Your task to perform on an android device: Show the shopping cart on walmart.com. Search for bose soundlink on walmart.com, select the first entry, add it to the cart, then select checkout. Image 0: 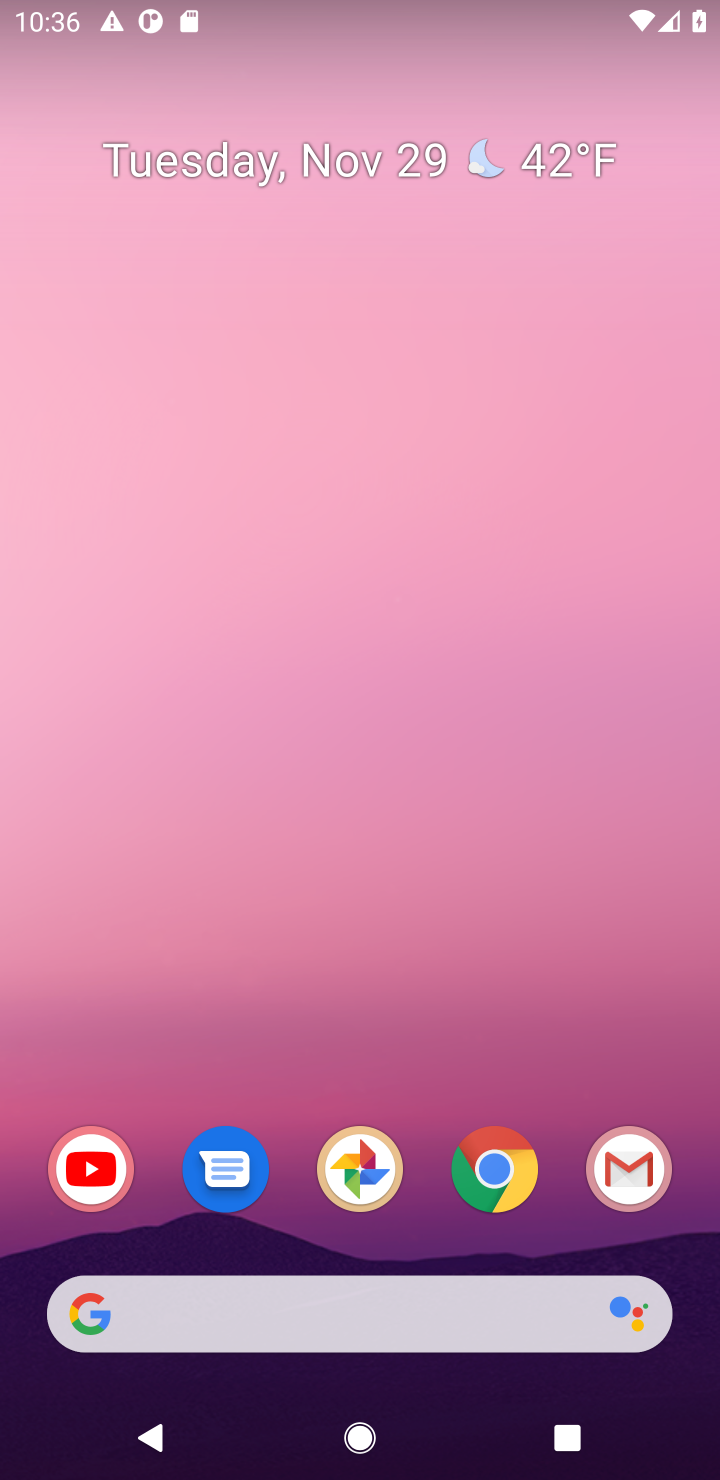
Step 0: click (209, 1315)
Your task to perform on an android device: Show the shopping cart on walmart.com. Search for bose soundlink on walmart.com, select the first entry, add it to the cart, then select checkout. Image 1: 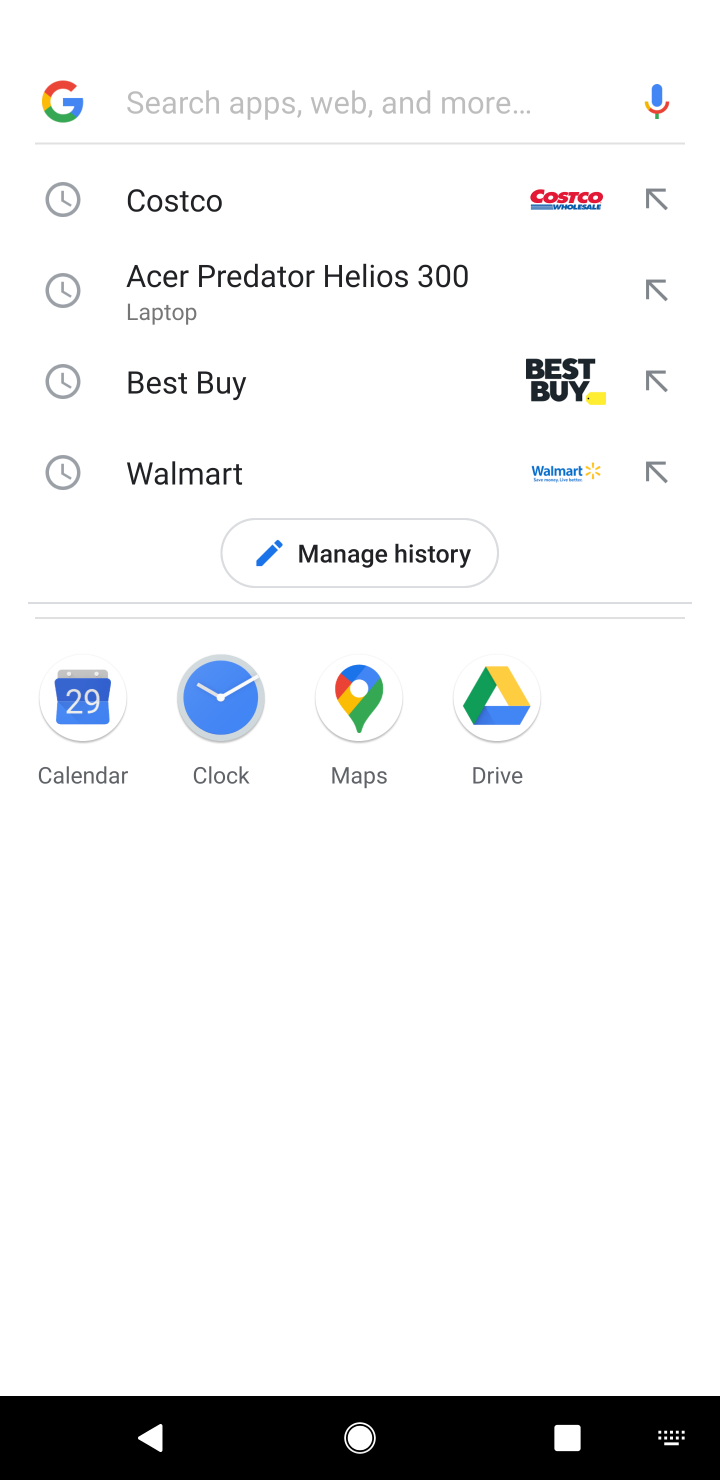
Step 1: type "walmart"
Your task to perform on an android device: Show the shopping cart on walmart.com. Search for bose soundlink on walmart.com, select the first entry, add it to the cart, then select checkout. Image 2: 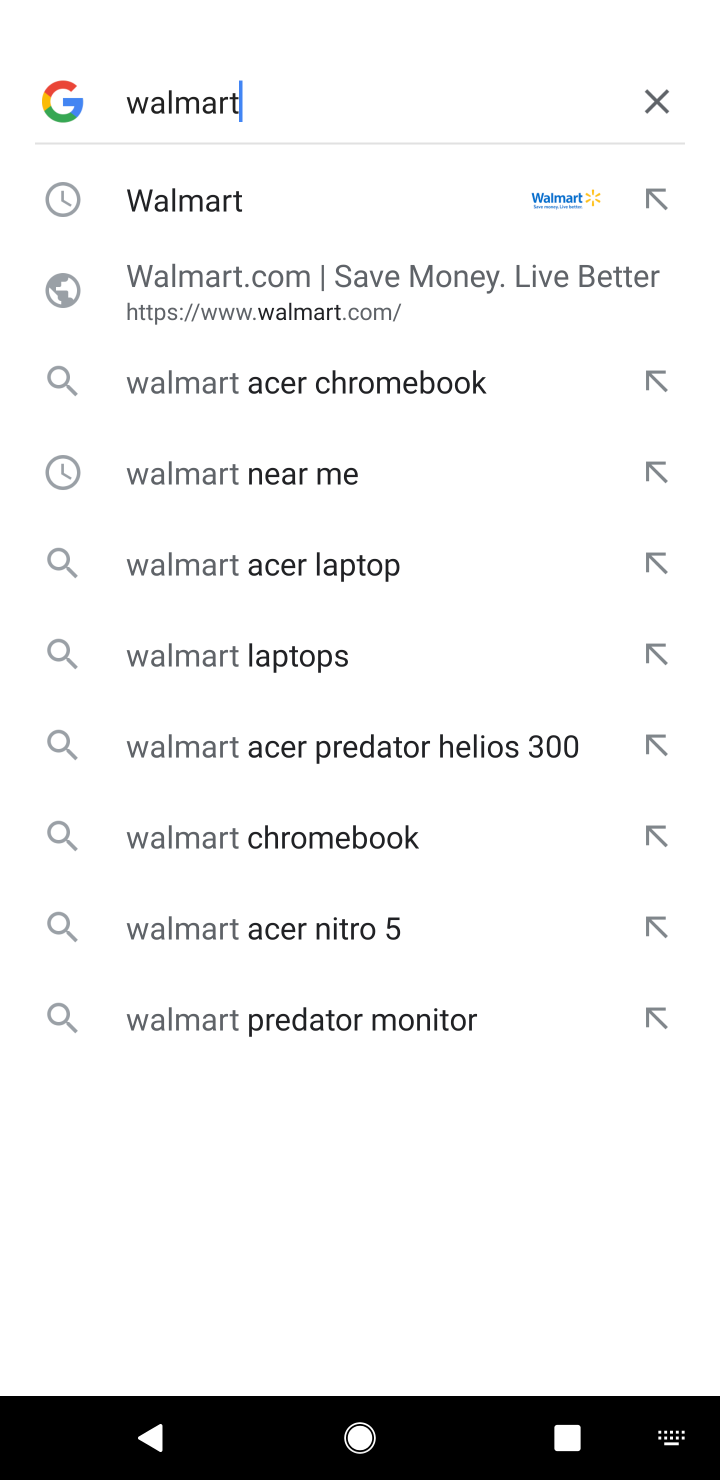
Step 2: click (265, 215)
Your task to perform on an android device: Show the shopping cart on walmart.com. Search for bose soundlink on walmart.com, select the first entry, add it to the cart, then select checkout. Image 3: 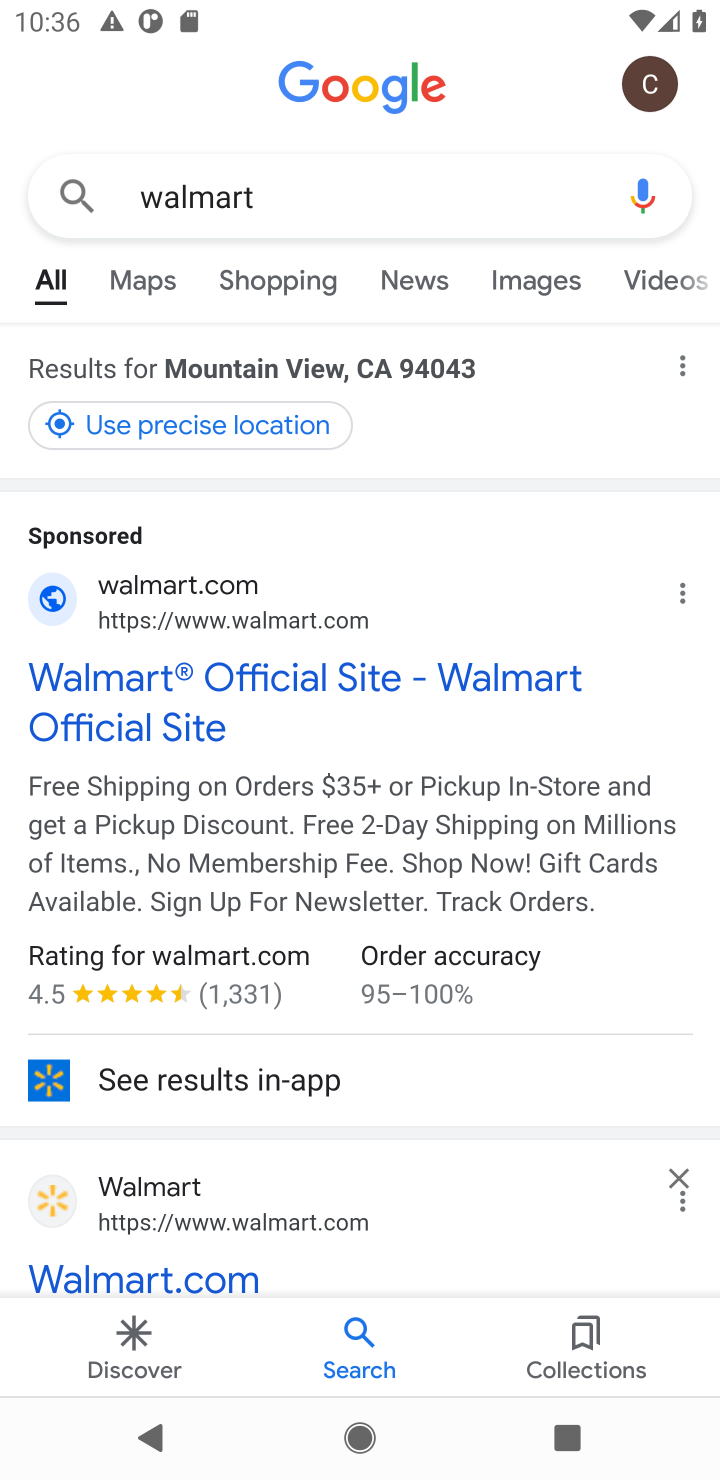
Step 3: click (183, 687)
Your task to perform on an android device: Show the shopping cart on walmart.com. Search for bose soundlink on walmart.com, select the first entry, add it to the cart, then select checkout. Image 4: 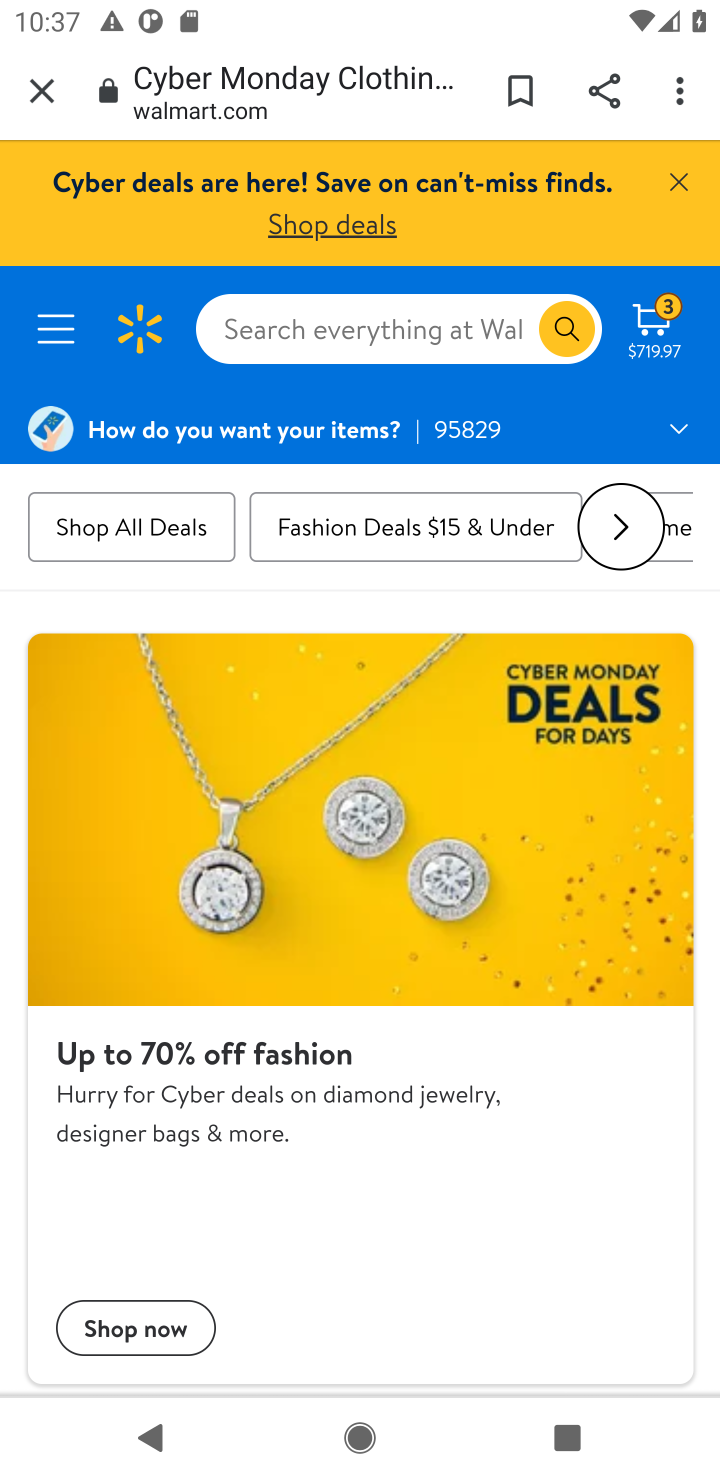
Step 4: click (355, 329)
Your task to perform on an android device: Show the shopping cart on walmart.com. Search for bose soundlink on walmart.com, select the first entry, add it to the cart, then select checkout. Image 5: 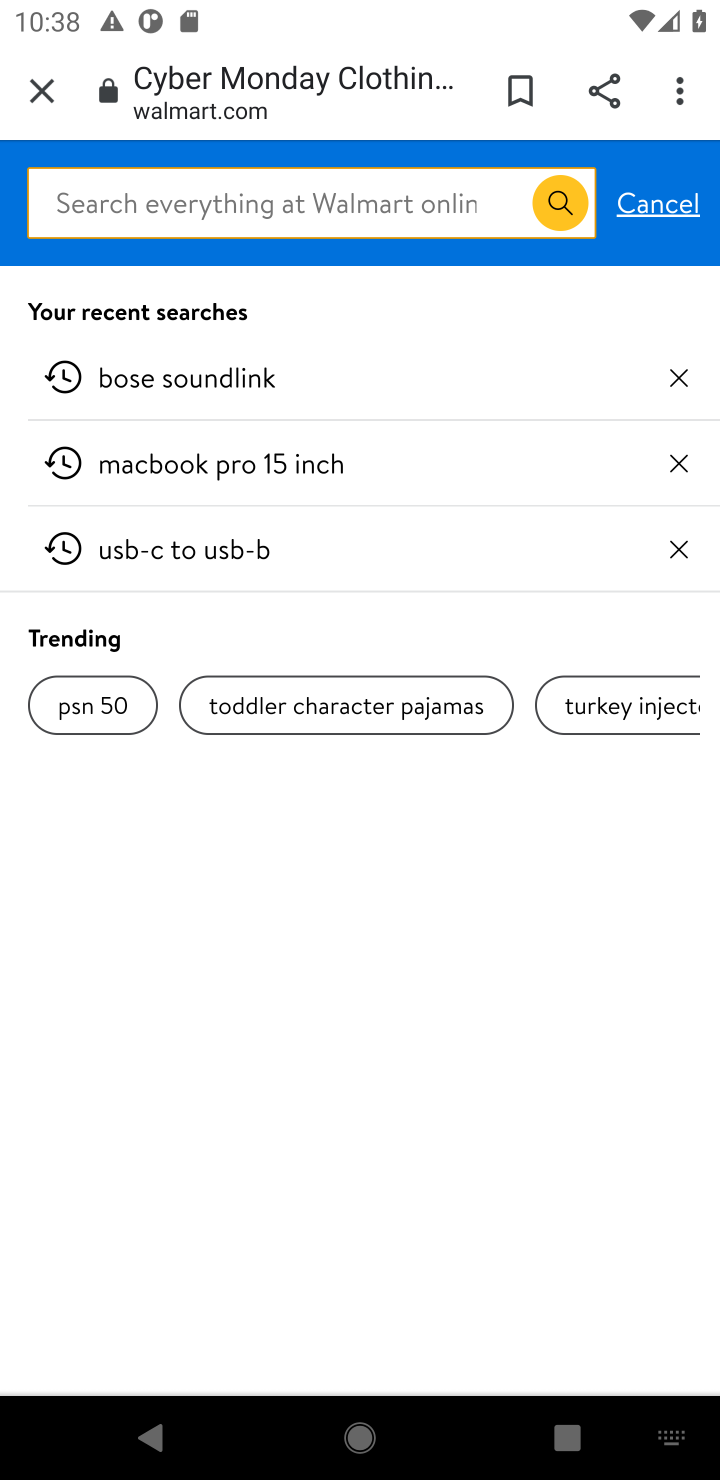
Step 5: click (314, 405)
Your task to perform on an android device: Show the shopping cart on walmart.com. Search for bose soundlink on walmart.com, select the first entry, add it to the cart, then select checkout. Image 6: 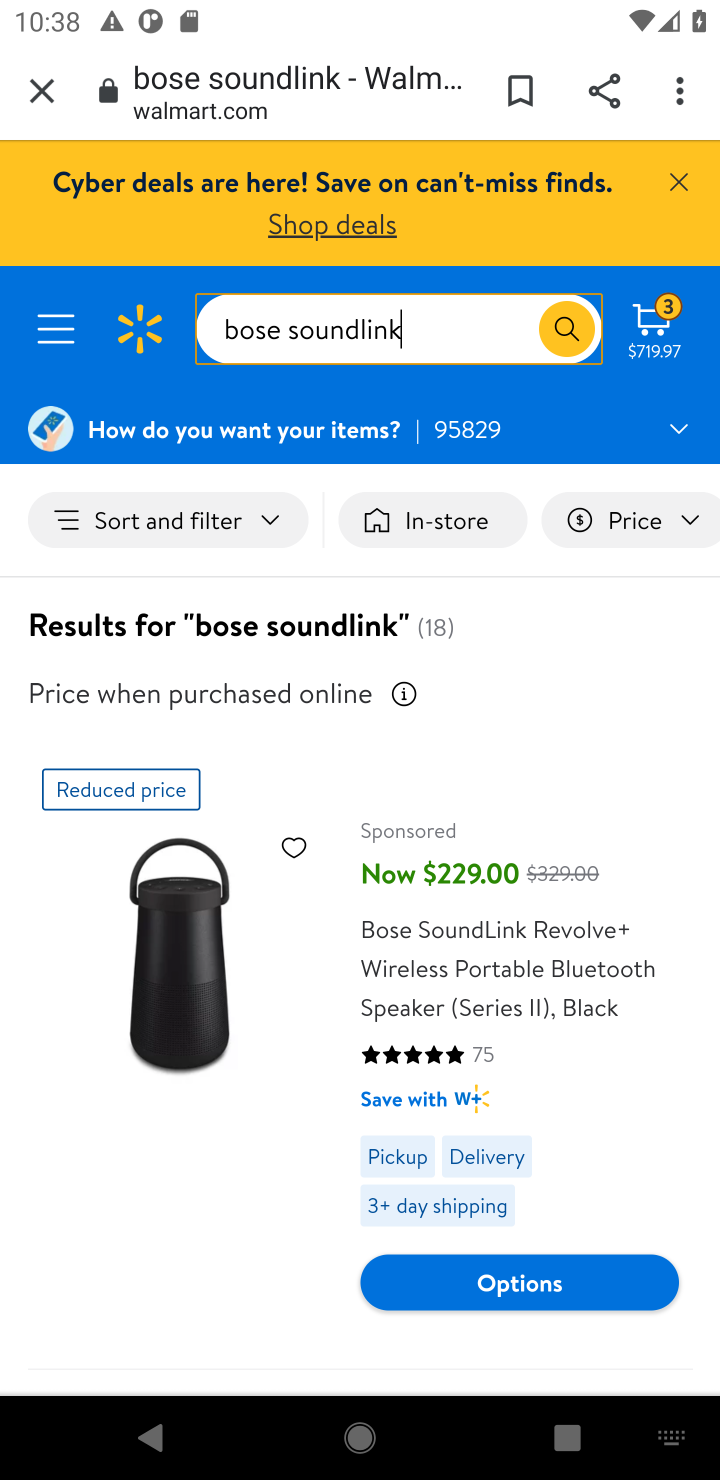
Step 6: click (550, 1275)
Your task to perform on an android device: Show the shopping cart on walmart.com. Search for bose soundlink on walmart.com, select the first entry, add it to the cart, then select checkout. Image 7: 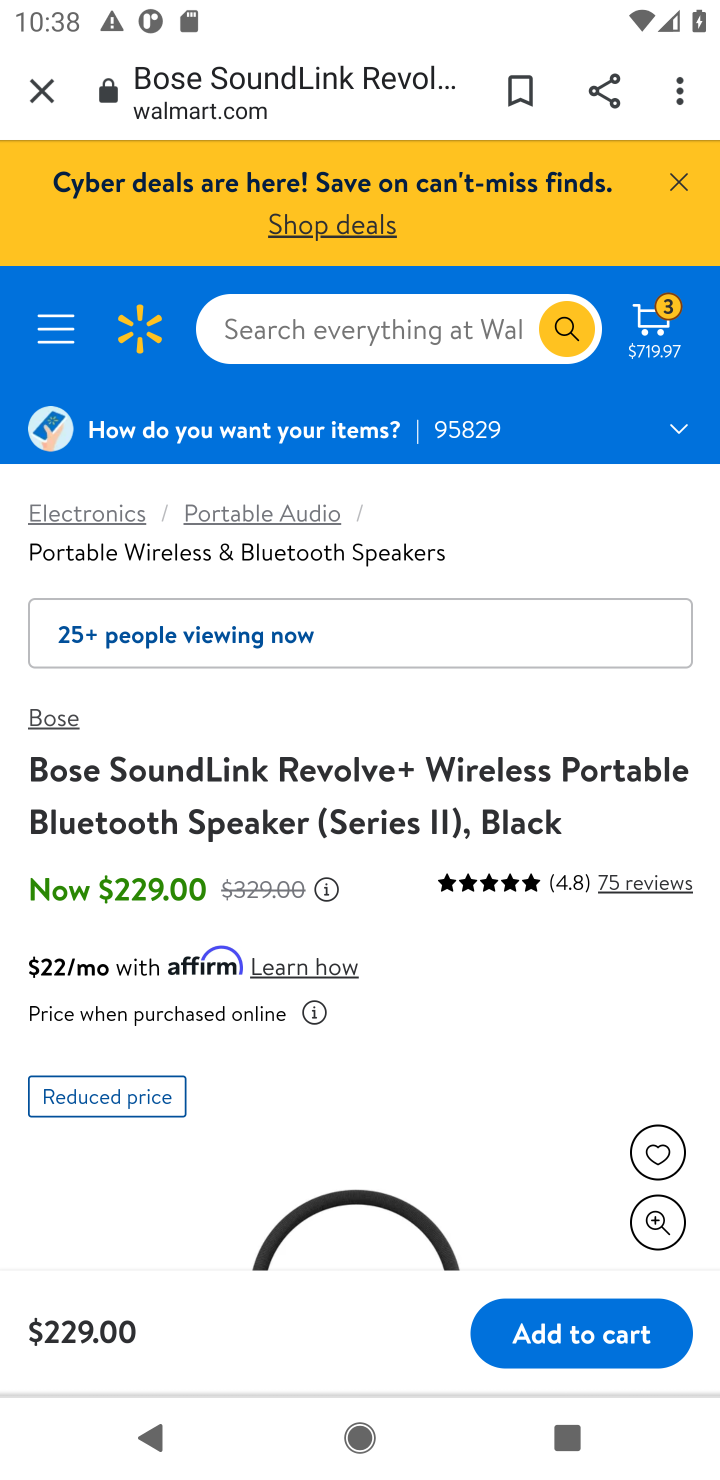
Step 7: click (592, 1340)
Your task to perform on an android device: Show the shopping cart on walmart.com. Search for bose soundlink on walmart.com, select the first entry, add it to the cart, then select checkout. Image 8: 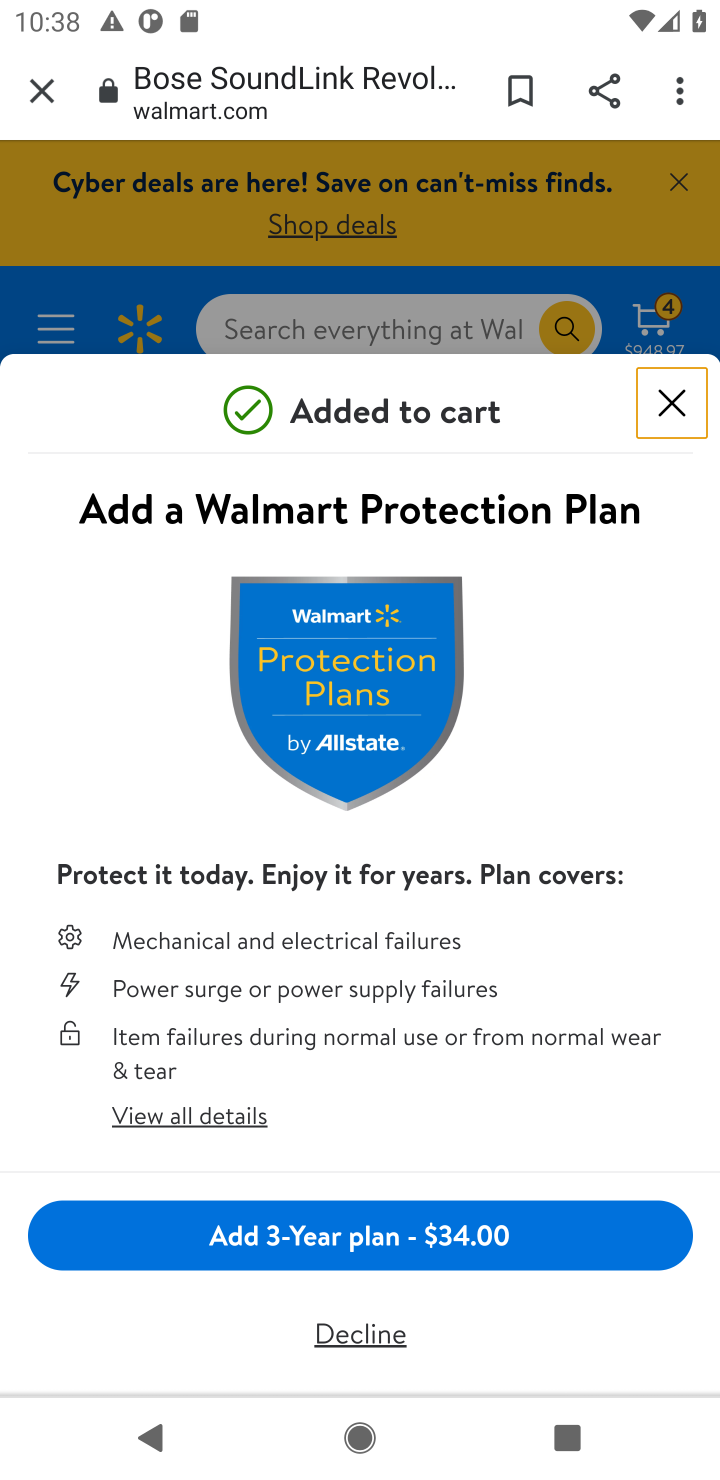
Step 8: click (379, 1343)
Your task to perform on an android device: Show the shopping cart on walmart.com. Search for bose soundlink on walmart.com, select the first entry, add it to the cart, then select checkout. Image 9: 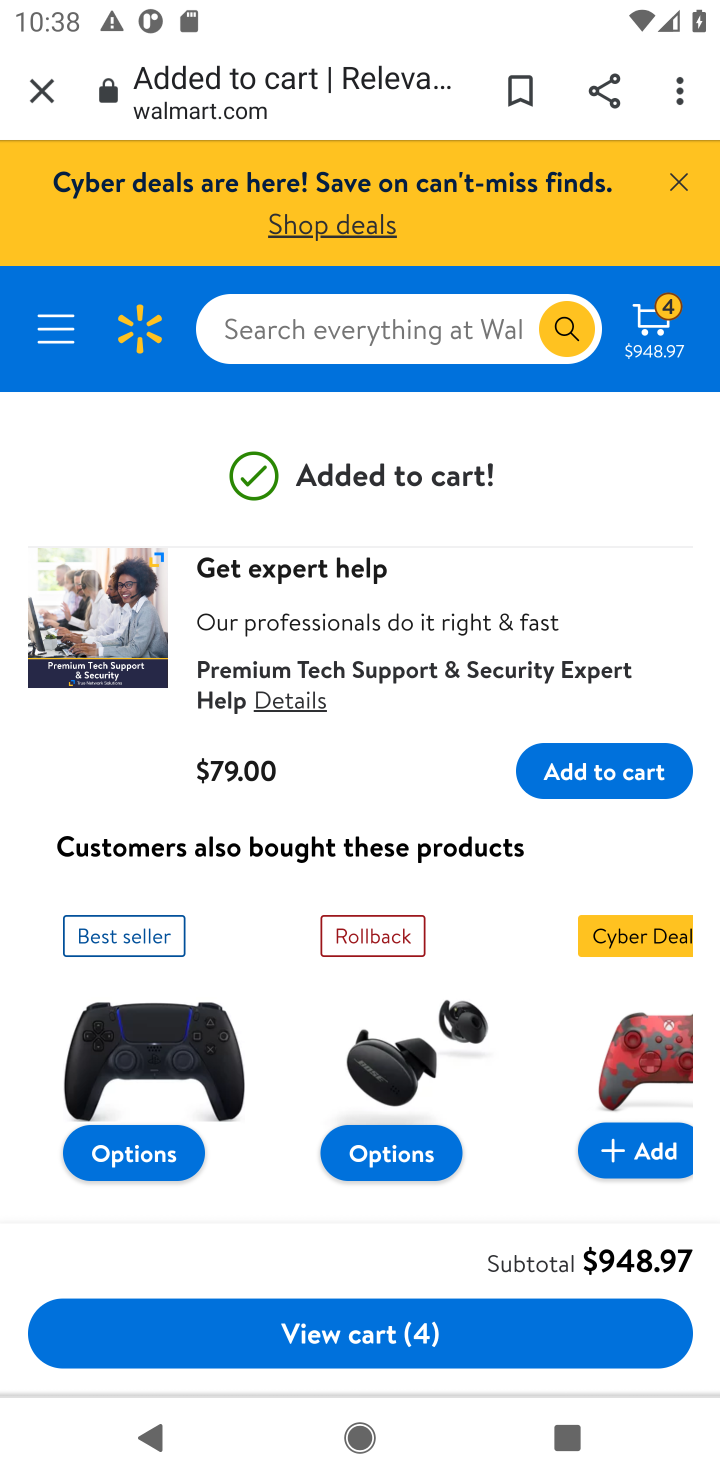
Step 9: click (631, 797)
Your task to perform on an android device: Show the shopping cart on walmart.com. Search for bose soundlink on walmart.com, select the first entry, add it to the cart, then select checkout. Image 10: 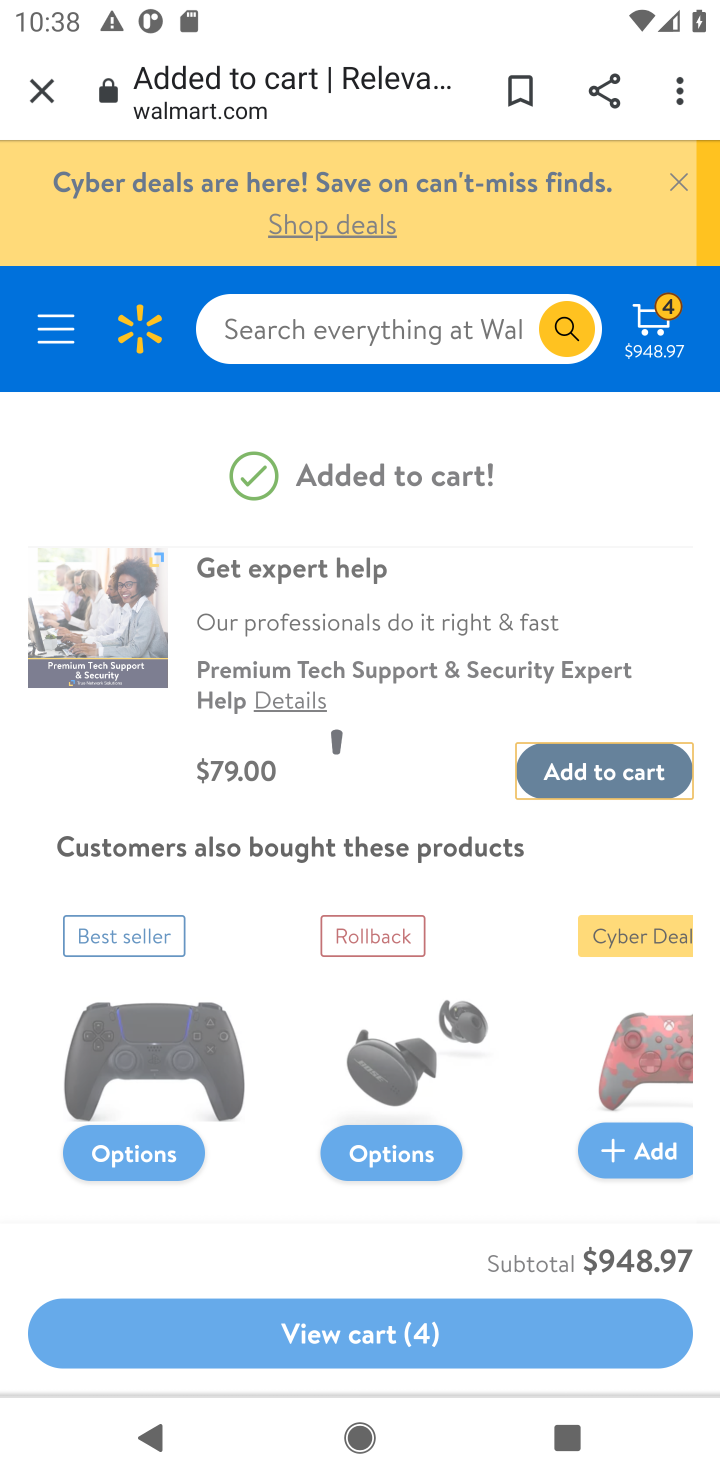
Step 10: task complete